Your task to perform on an android device: turn off location history Image 0: 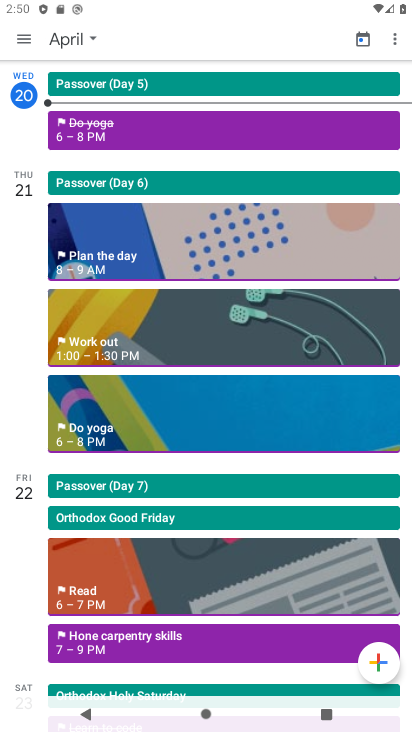
Step 0: press back button
Your task to perform on an android device: turn off location history Image 1: 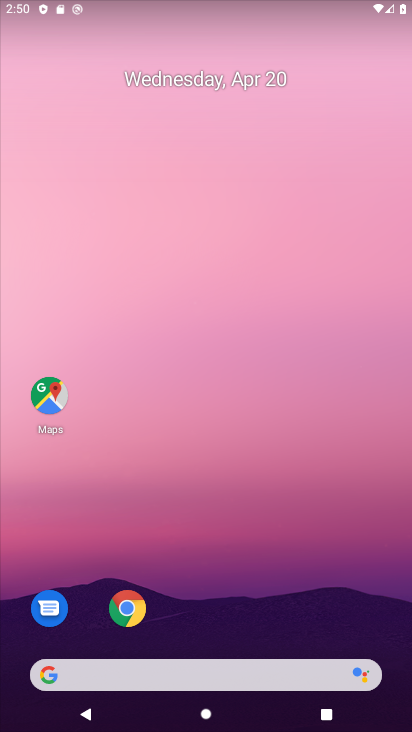
Step 1: drag from (183, 590) to (253, 103)
Your task to perform on an android device: turn off location history Image 2: 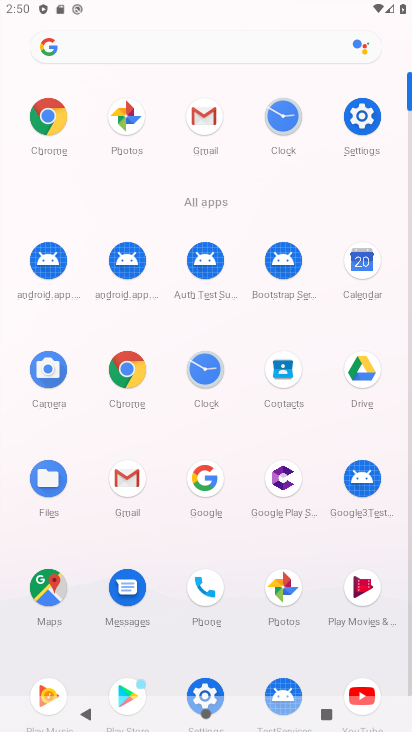
Step 2: click (357, 119)
Your task to perform on an android device: turn off location history Image 3: 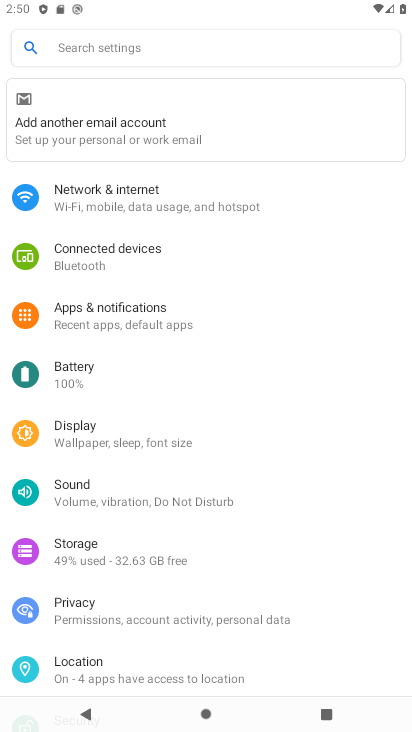
Step 3: click (98, 672)
Your task to perform on an android device: turn off location history Image 4: 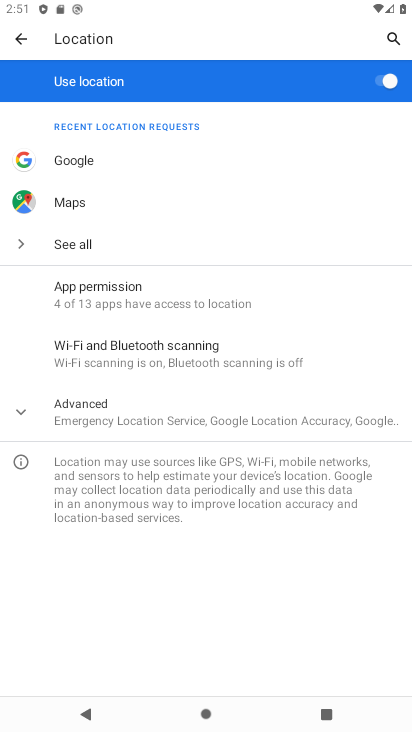
Step 4: click (209, 417)
Your task to perform on an android device: turn off location history Image 5: 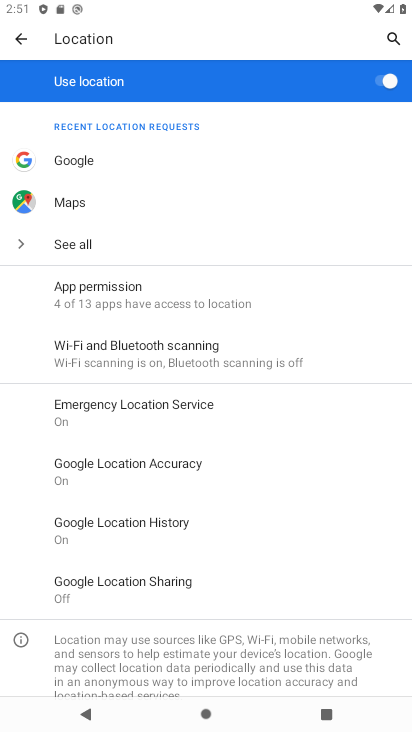
Step 5: click (155, 526)
Your task to perform on an android device: turn off location history Image 6: 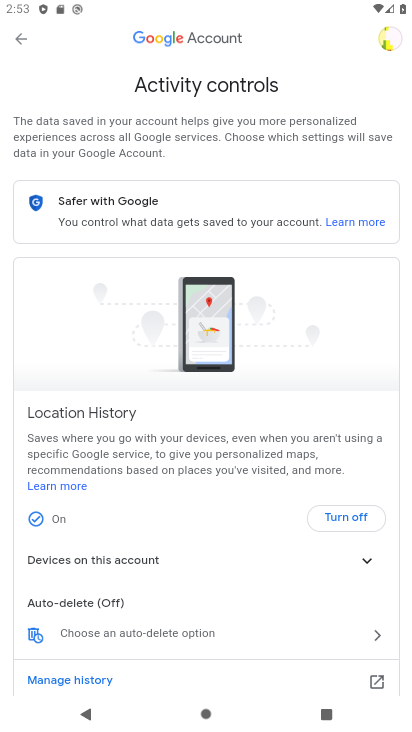
Step 6: drag from (179, 588) to (239, 284)
Your task to perform on an android device: turn off location history Image 7: 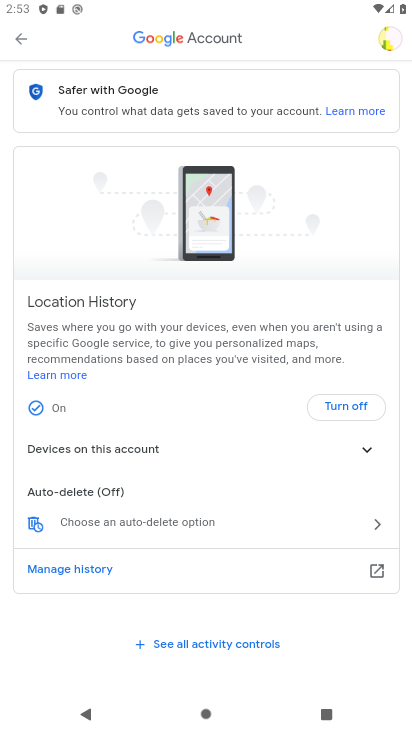
Step 7: click (346, 415)
Your task to perform on an android device: turn off location history Image 8: 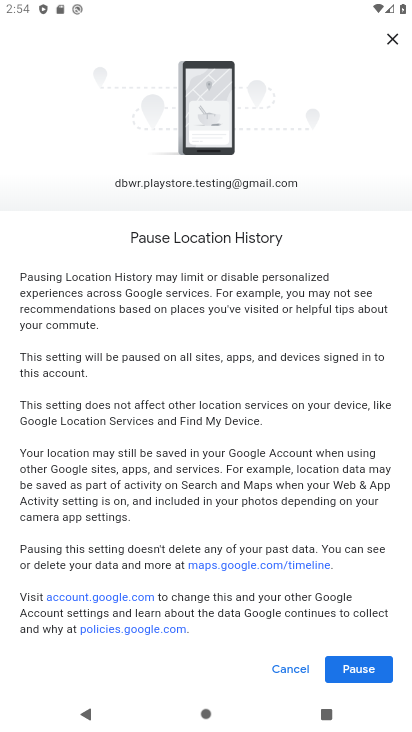
Step 8: drag from (157, 541) to (262, 101)
Your task to perform on an android device: turn off location history Image 9: 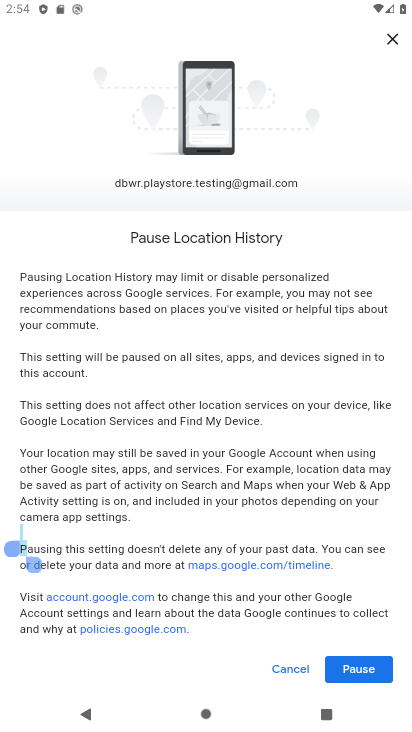
Step 9: drag from (207, 538) to (263, 109)
Your task to perform on an android device: turn off location history Image 10: 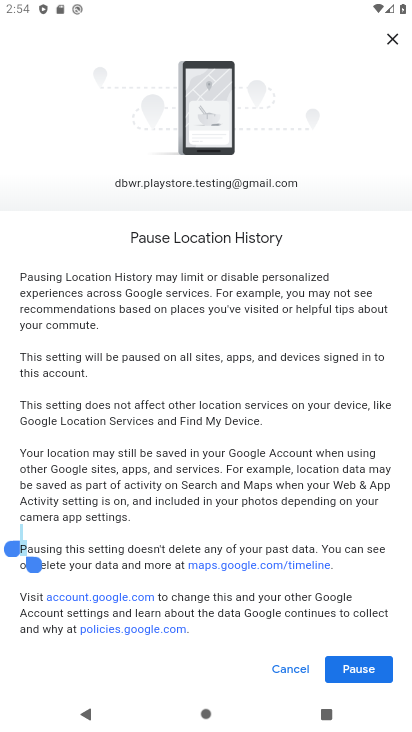
Step 10: click (5, 215)
Your task to perform on an android device: turn off location history Image 11: 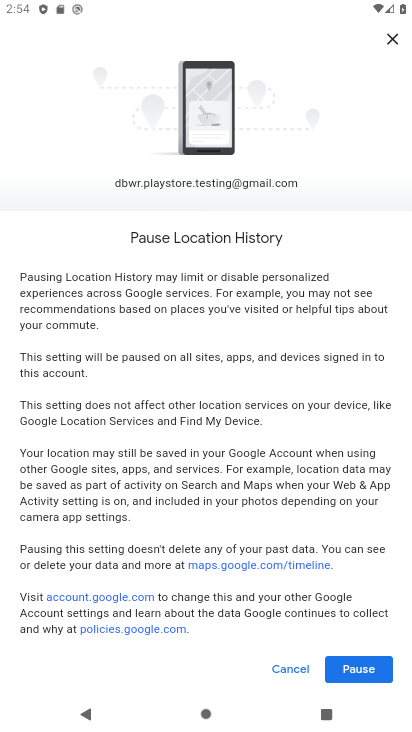
Step 11: drag from (268, 481) to (308, 233)
Your task to perform on an android device: turn off location history Image 12: 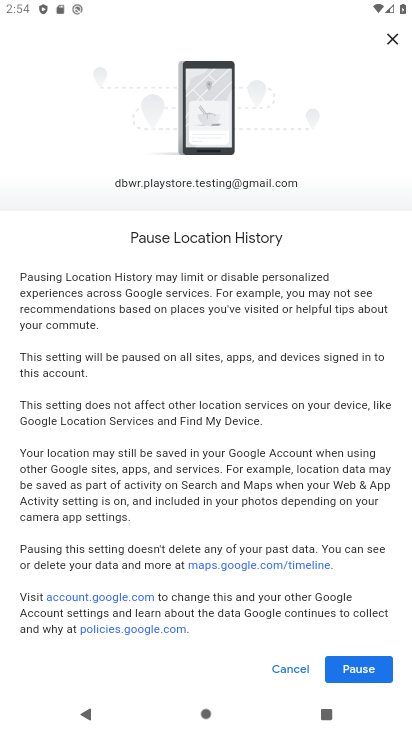
Step 12: click (364, 670)
Your task to perform on an android device: turn off location history Image 13: 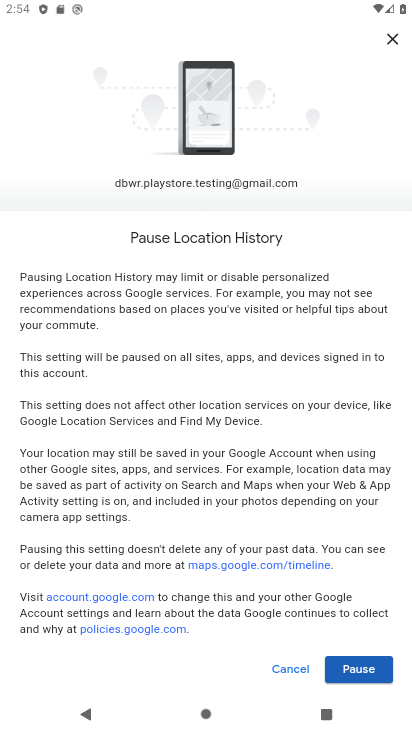
Step 13: click (374, 665)
Your task to perform on an android device: turn off location history Image 14: 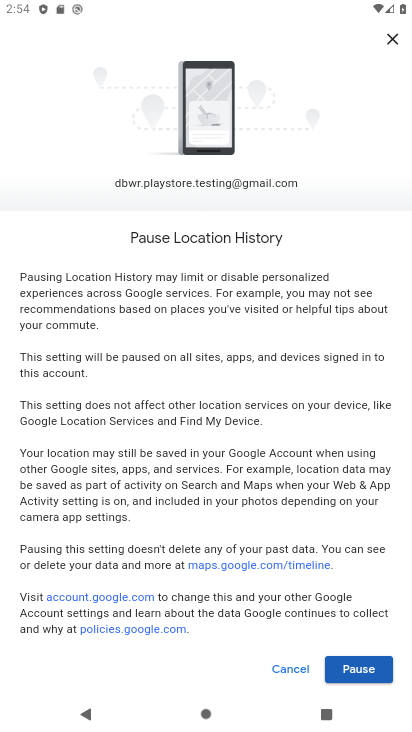
Step 14: click (361, 671)
Your task to perform on an android device: turn off location history Image 15: 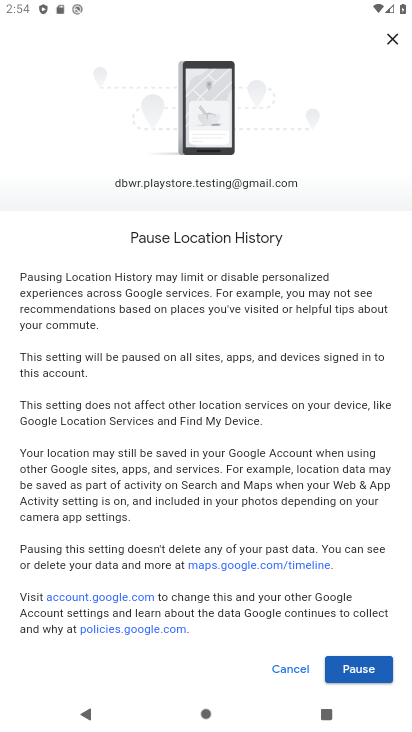
Step 15: click (369, 667)
Your task to perform on an android device: turn off location history Image 16: 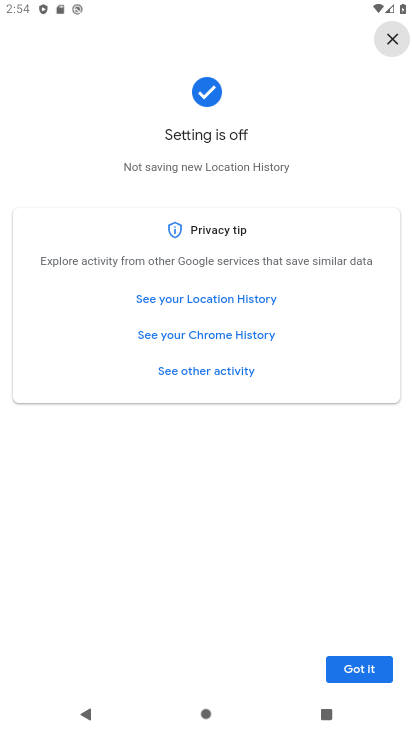
Step 16: task complete